Your task to perform on an android device: What's the weather today? Image 0: 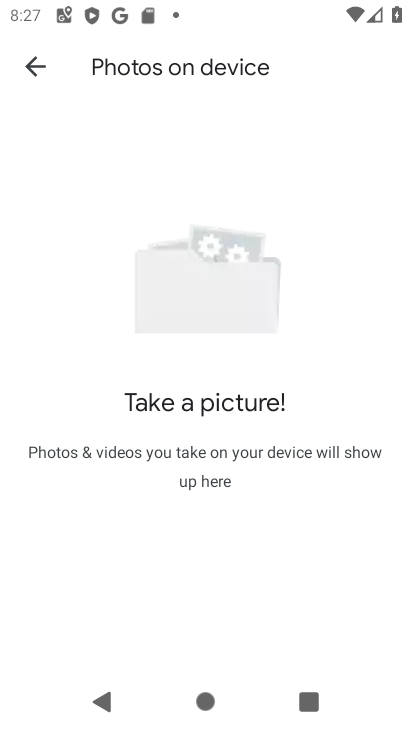
Step 0: press home button
Your task to perform on an android device: What's the weather today? Image 1: 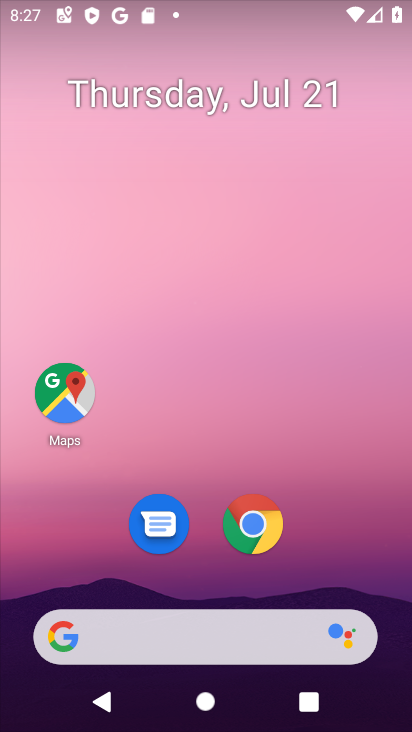
Step 1: click (168, 637)
Your task to perform on an android device: What's the weather today? Image 2: 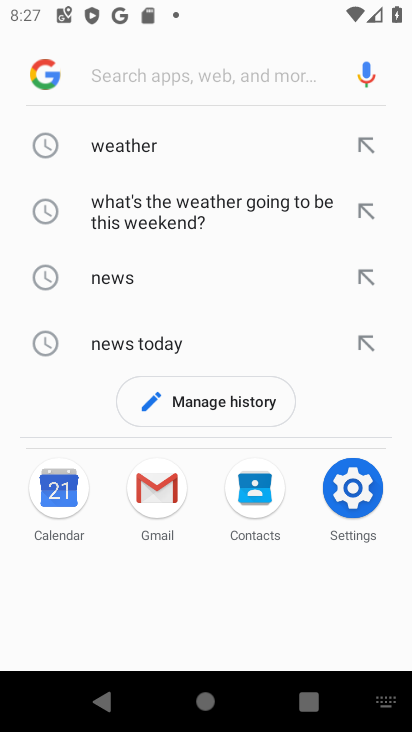
Step 2: click (135, 145)
Your task to perform on an android device: What's the weather today? Image 3: 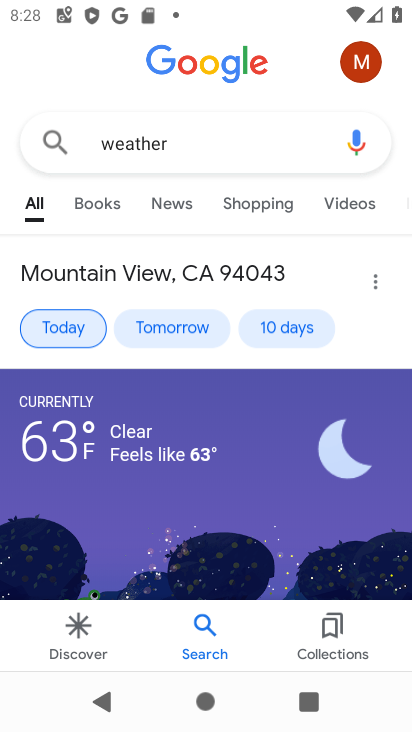
Step 3: task complete